Your task to perform on an android device: check android version Image 0: 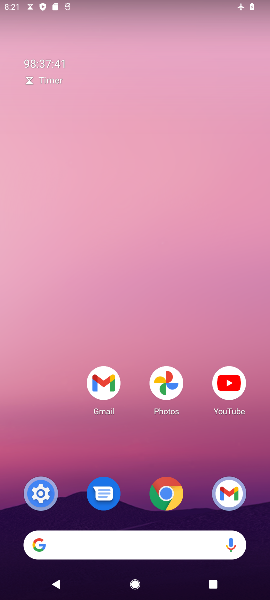
Step 0: drag from (144, 501) to (144, 125)
Your task to perform on an android device: check android version Image 1: 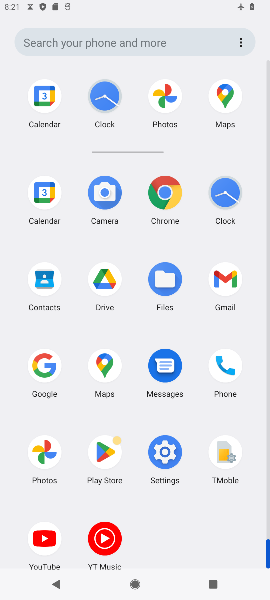
Step 1: click (170, 454)
Your task to perform on an android device: check android version Image 2: 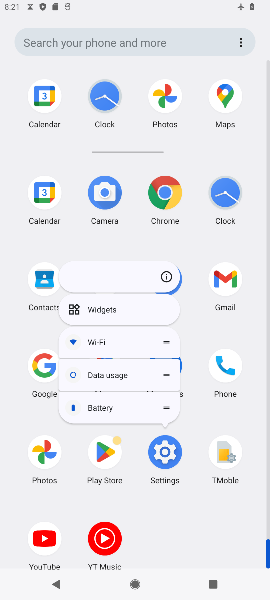
Step 2: click (155, 444)
Your task to perform on an android device: check android version Image 3: 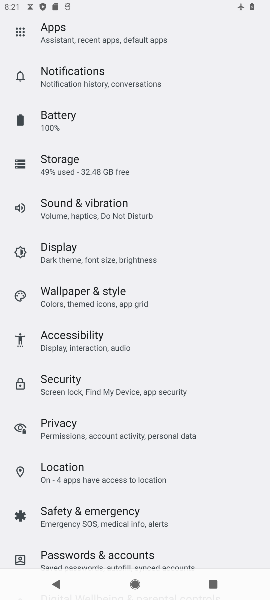
Step 3: drag from (147, 510) to (169, 152)
Your task to perform on an android device: check android version Image 4: 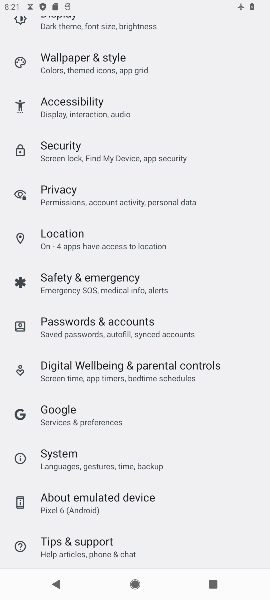
Step 4: click (106, 488)
Your task to perform on an android device: check android version Image 5: 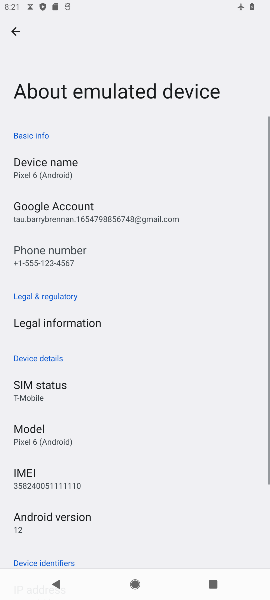
Step 5: click (59, 524)
Your task to perform on an android device: check android version Image 6: 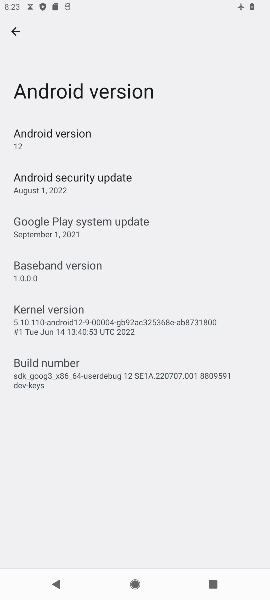
Step 6: task complete